Your task to perform on an android device: Go to accessibility settings Image 0: 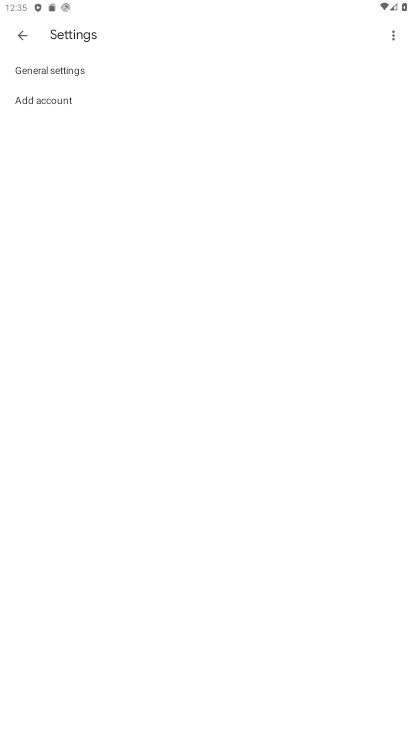
Step 0: press home button
Your task to perform on an android device: Go to accessibility settings Image 1: 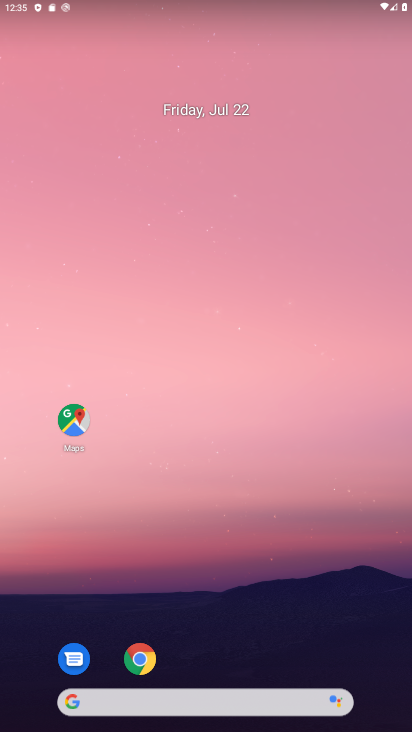
Step 1: drag from (317, 612) to (266, 75)
Your task to perform on an android device: Go to accessibility settings Image 2: 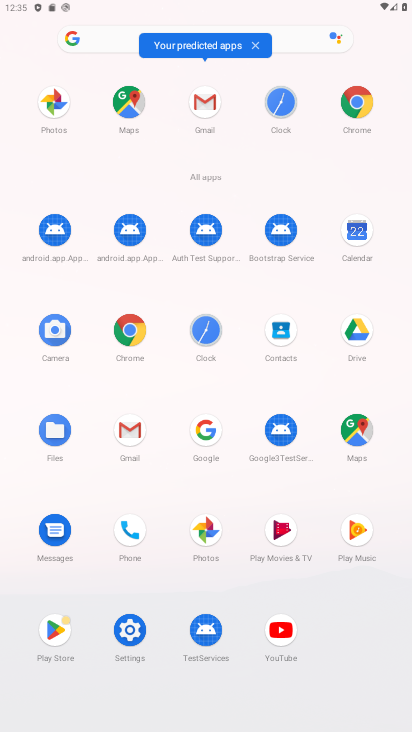
Step 2: click (124, 621)
Your task to perform on an android device: Go to accessibility settings Image 3: 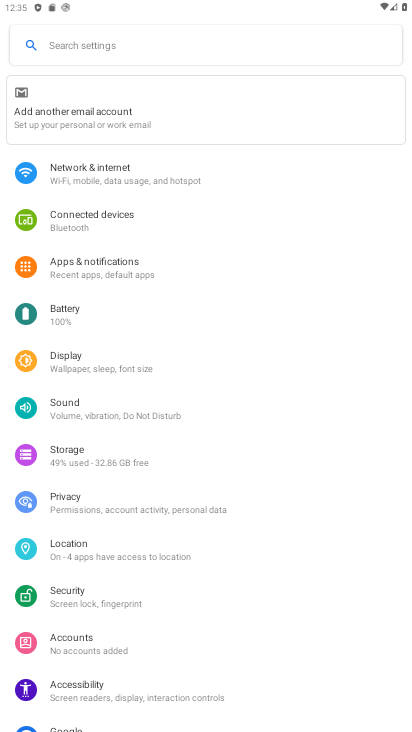
Step 3: click (77, 677)
Your task to perform on an android device: Go to accessibility settings Image 4: 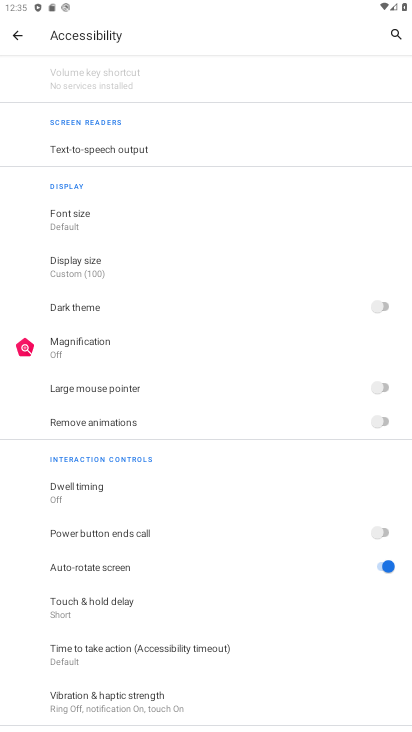
Step 4: task complete